Your task to perform on an android device: Do I have any events today? Image 0: 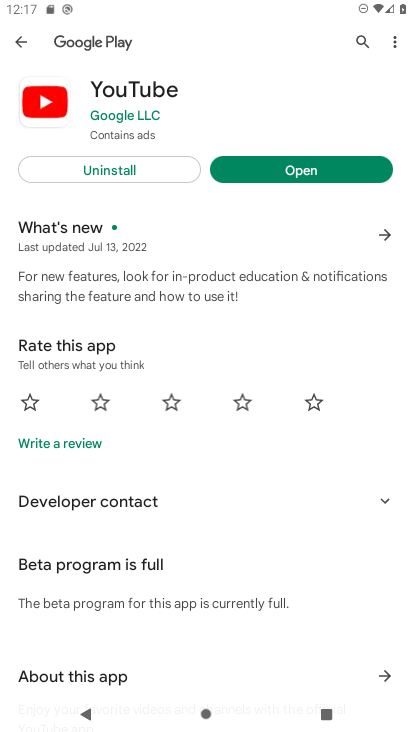
Step 0: press home button
Your task to perform on an android device: Do I have any events today? Image 1: 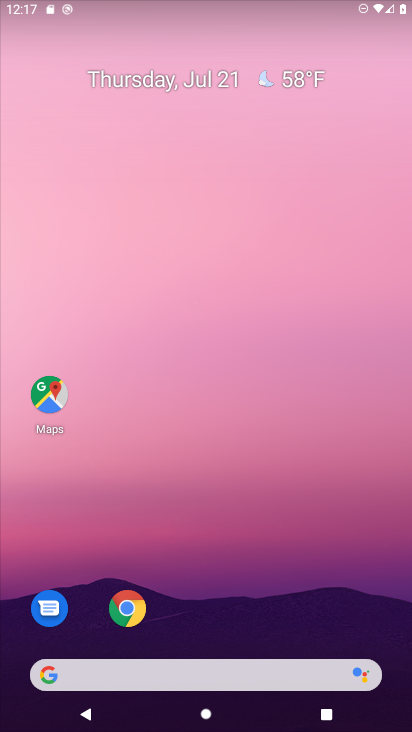
Step 1: drag from (314, 624) to (307, 174)
Your task to perform on an android device: Do I have any events today? Image 2: 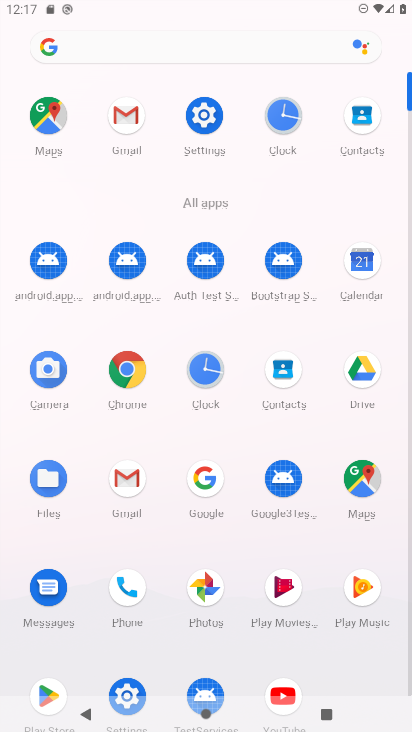
Step 2: click (361, 268)
Your task to perform on an android device: Do I have any events today? Image 3: 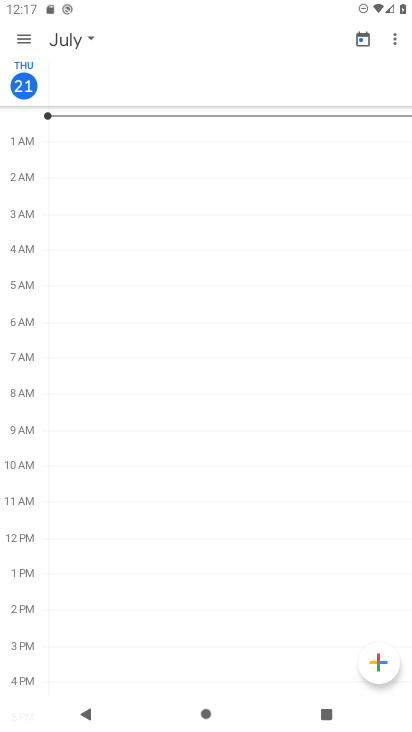
Step 3: click (26, 94)
Your task to perform on an android device: Do I have any events today? Image 4: 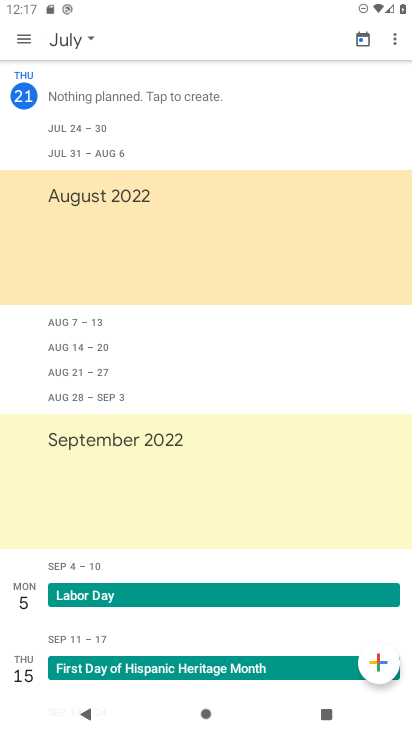
Step 4: task complete